Your task to perform on an android device: allow notifications from all sites in the chrome app Image 0: 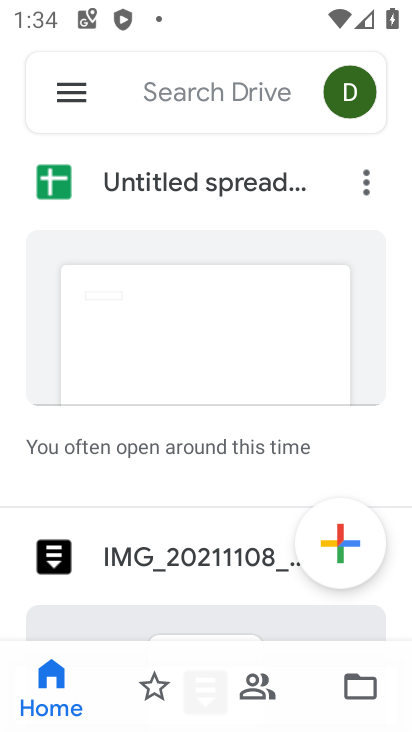
Step 0: press home button
Your task to perform on an android device: allow notifications from all sites in the chrome app Image 1: 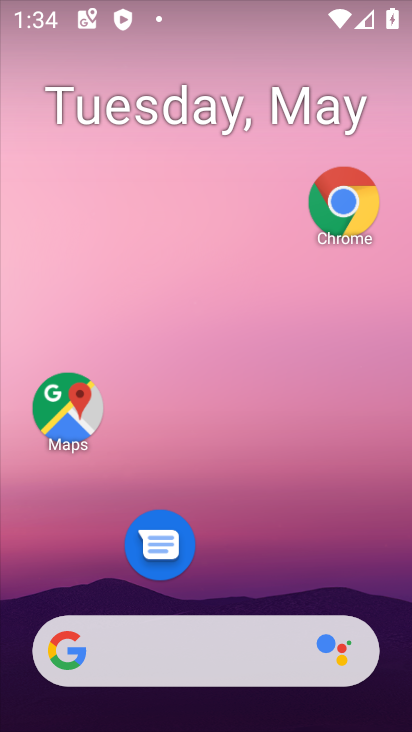
Step 1: click (340, 198)
Your task to perform on an android device: allow notifications from all sites in the chrome app Image 2: 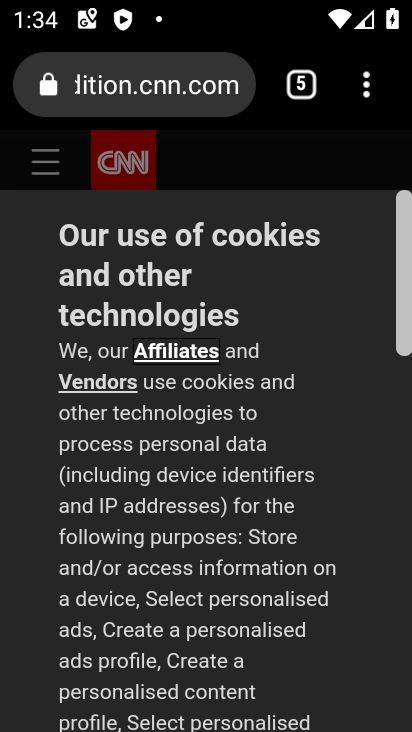
Step 2: click (383, 79)
Your task to perform on an android device: allow notifications from all sites in the chrome app Image 3: 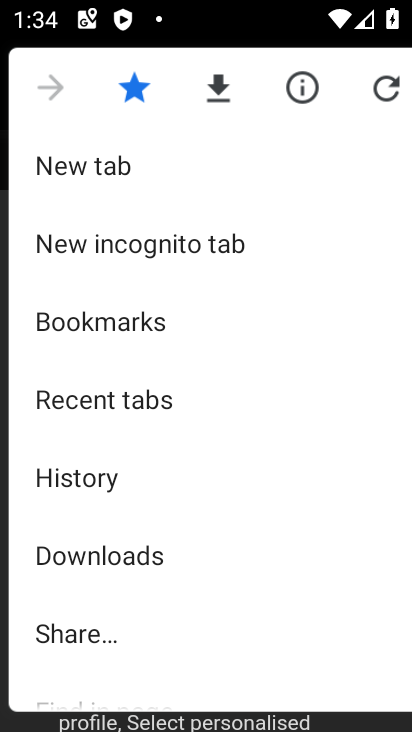
Step 3: drag from (170, 584) to (254, 113)
Your task to perform on an android device: allow notifications from all sites in the chrome app Image 4: 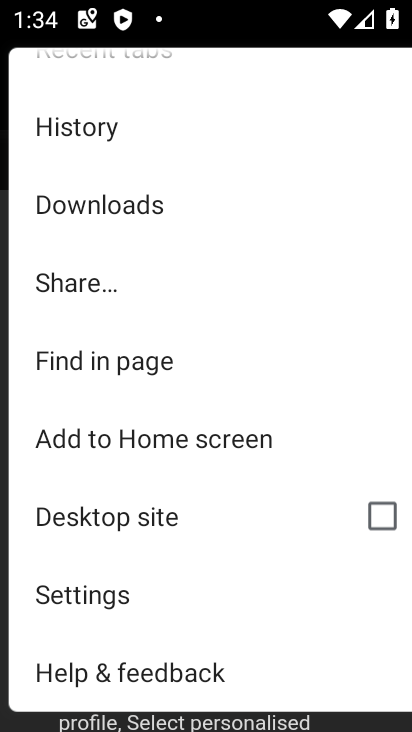
Step 4: click (169, 576)
Your task to perform on an android device: allow notifications from all sites in the chrome app Image 5: 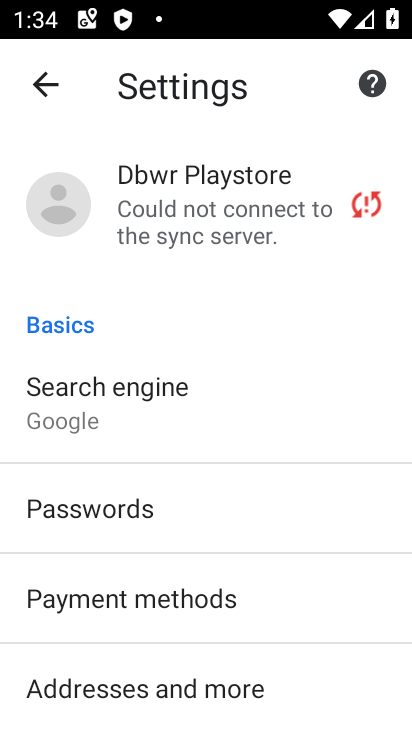
Step 5: drag from (110, 699) to (190, 246)
Your task to perform on an android device: allow notifications from all sites in the chrome app Image 6: 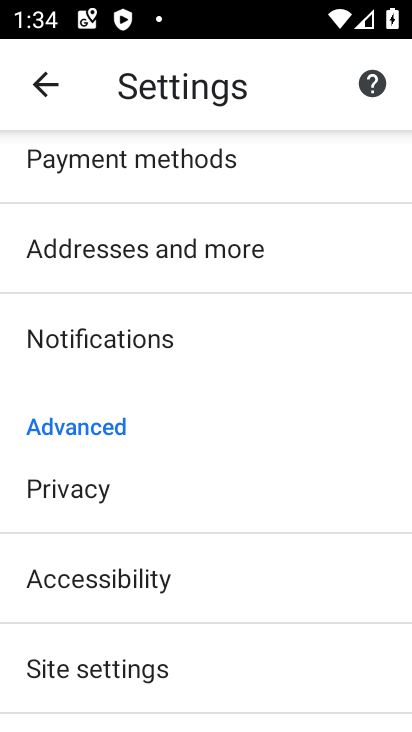
Step 6: click (202, 346)
Your task to perform on an android device: allow notifications from all sites in the chrome app Image 7: 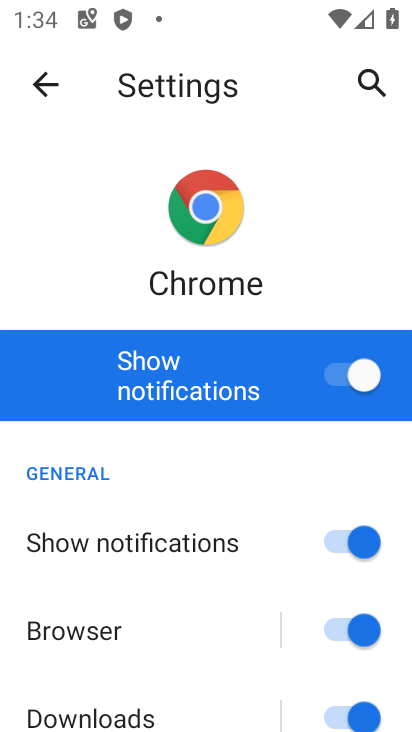
Step 7: task complete